Your task to perform on an android device: Open display settings Image 0: 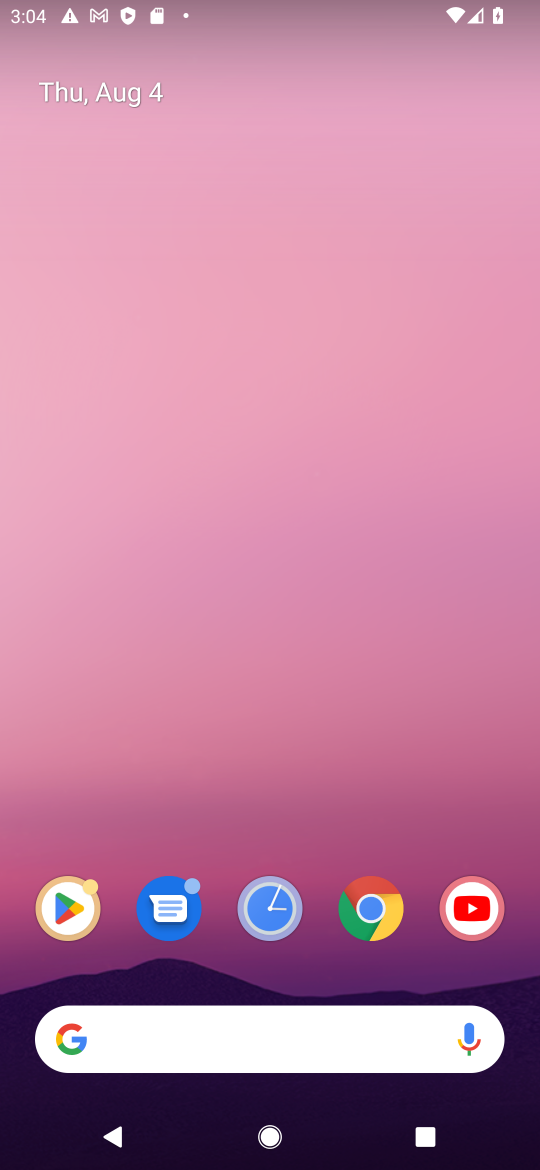
Step 0: drag from (254, 710) to (399, 34)
Your task to perform on an android device: Open display settings Image 1: 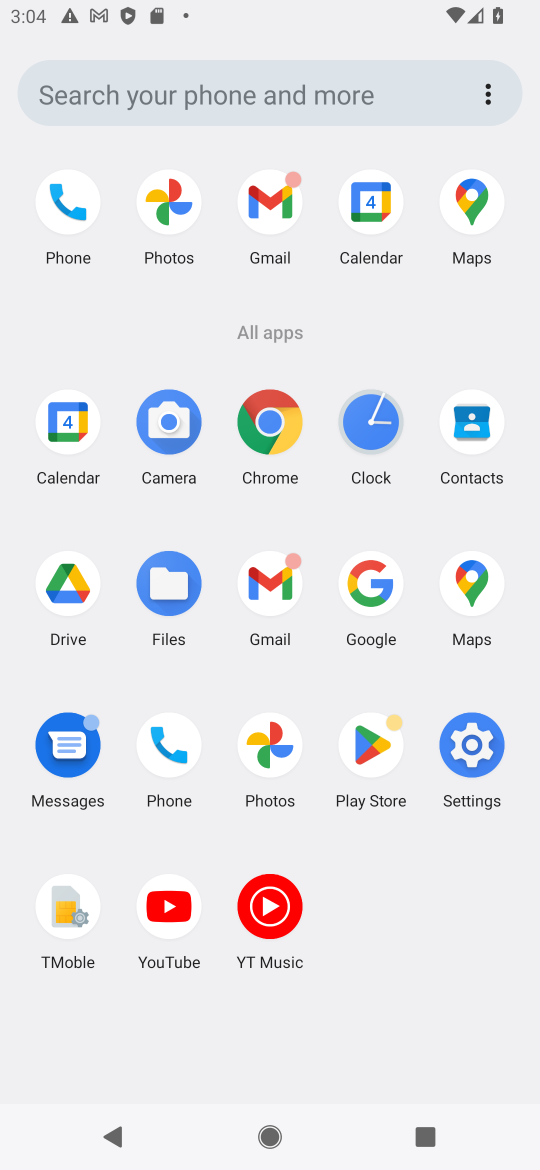
Step 1: click (481, 775)
Your task to perform on an android device: Open display settings Image 2: 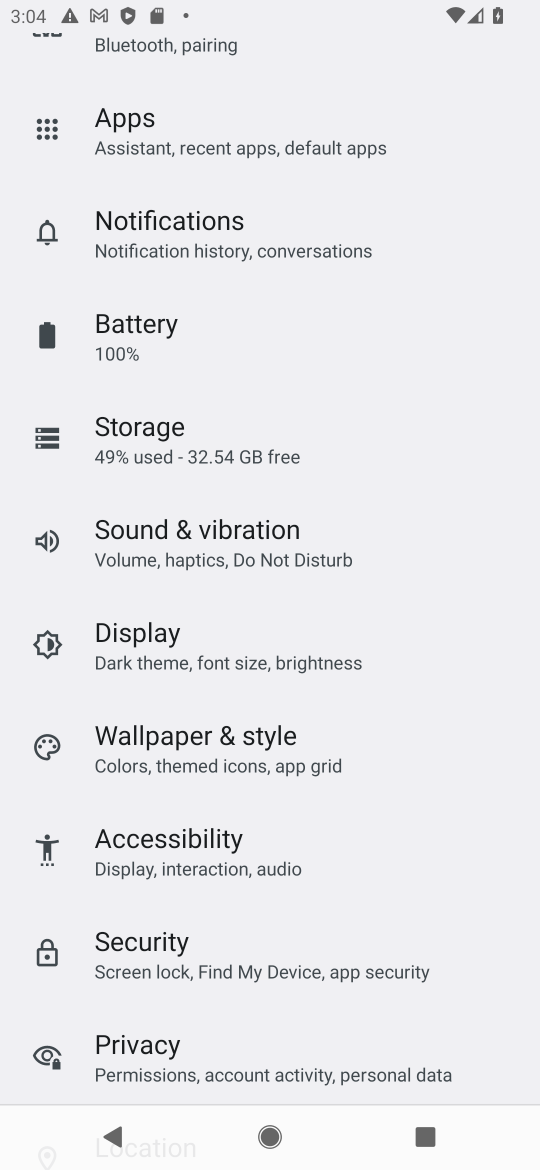
Step 2: click (136, 628)
Your task to perform on an android device: Open display settings Image 3: 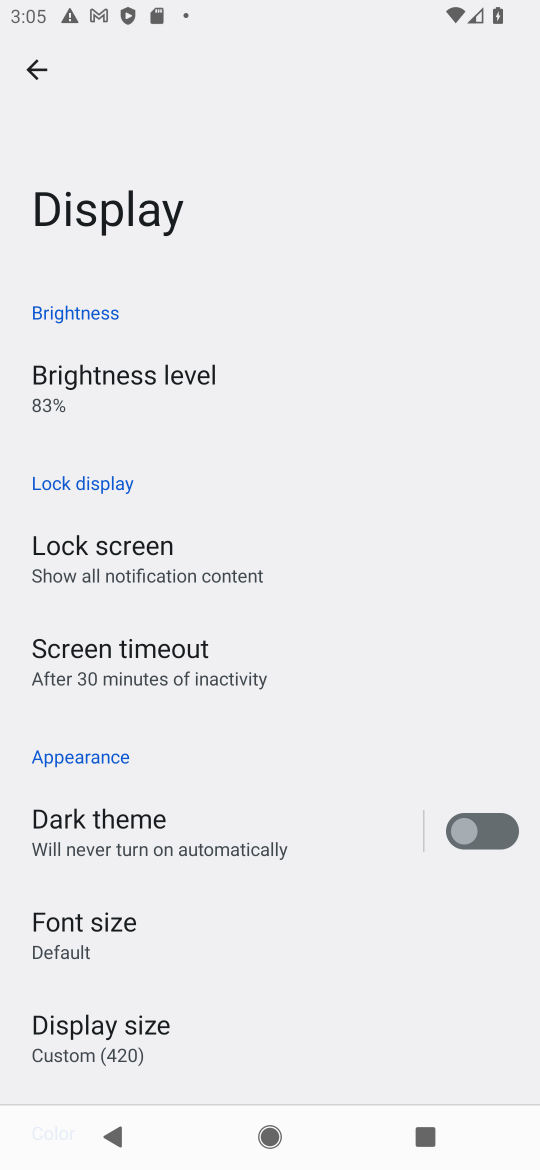
Step 3: task complete